Your task to perform on an android device: Open accessibility settings Image 0: 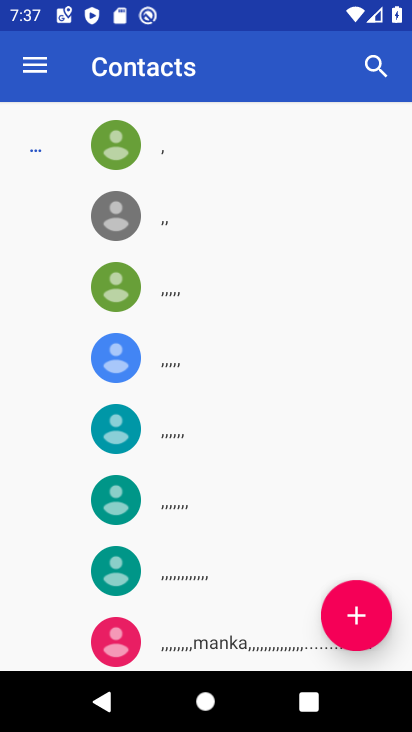
Step 0: press home button
Your task to perform on an android device: Open accessibility settings Image 1: 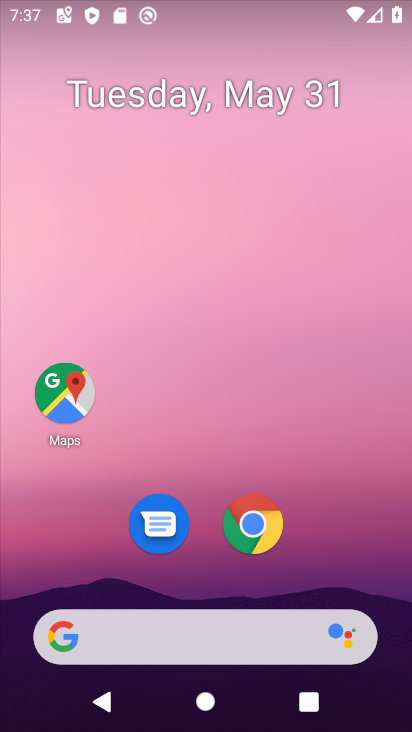
Step 1: drag from (204, 573) to (220, 71)
Your task to perform on an android device: Open accessibility settings Image 2: 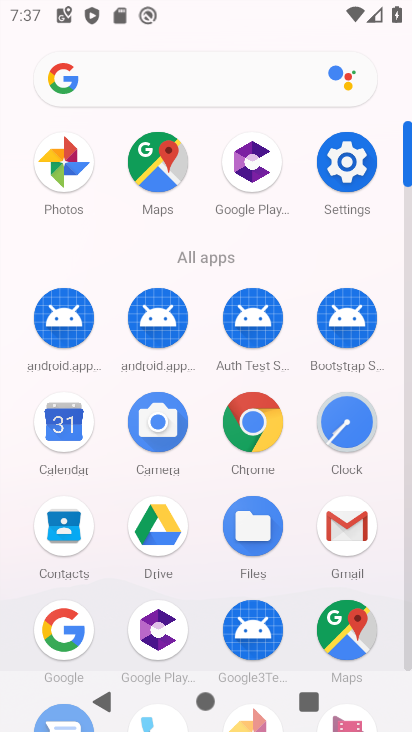
Step 2: click (338, 161)
Your task to perform on an android device: Open accessibility settings Image 3: 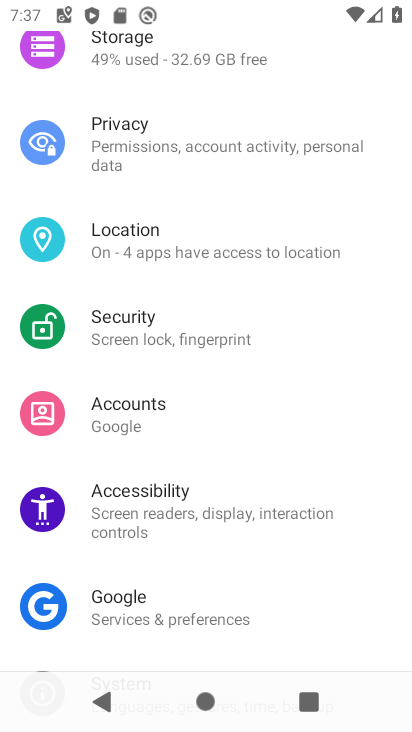
Step 3: click (165, 504)
Your task to perform on an android device: Open accessibility settings Image 4: 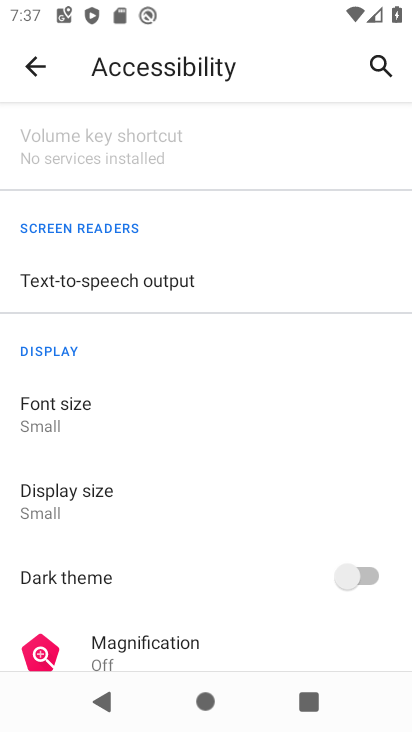
Step 4: task complete